Your task to perform on an android device: turn off wifi Image 0: 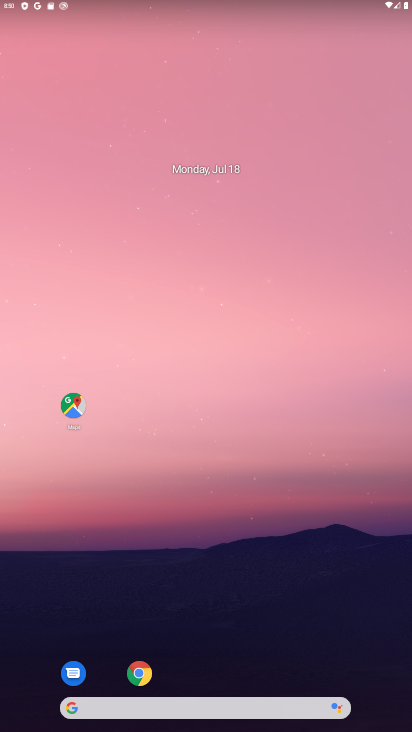
Step 0: drag from (221, 656) to (211, 113)
Your task to perform on an android device: turn off wifi Image 1: 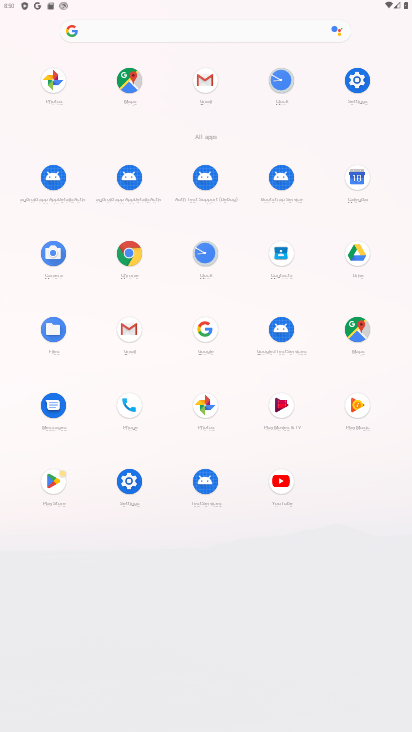
Step 1: click (354, 79)
Your task to perform on an android device: turn off wifi Image 2: 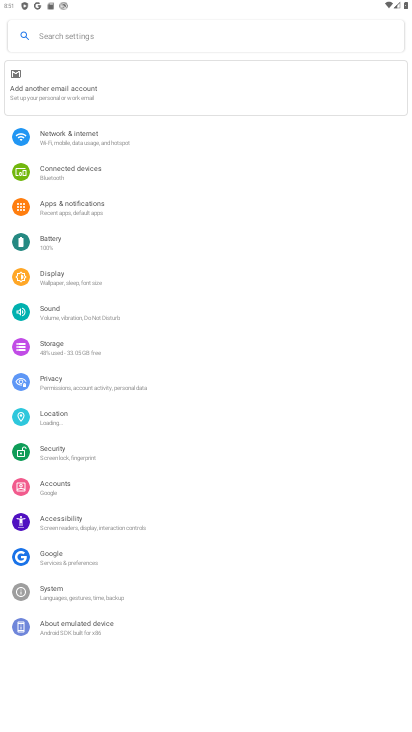
Step 2: click (75, 141)
Your task to perform on an android device: turn off wifi Image 3: 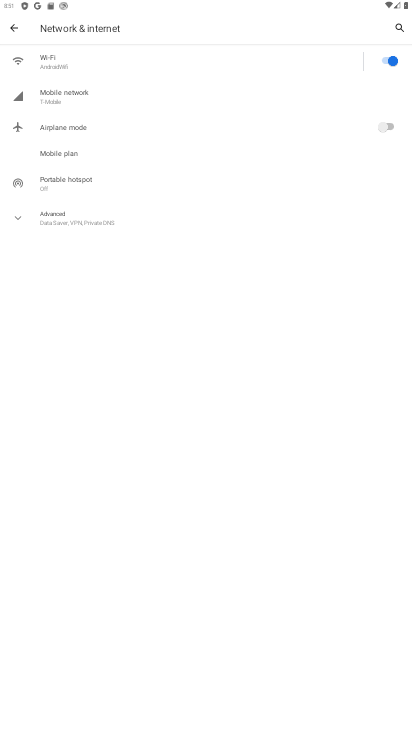
Step 3: click (392, 59)
Your task to perform on an android device: turn off wifi Image 4: 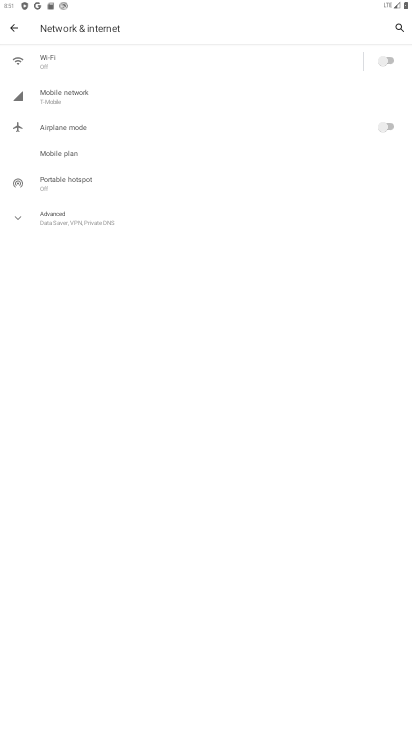
Step 4: task complete